Your task to perform on an android device: change notification settings in the gmail app Image 0: 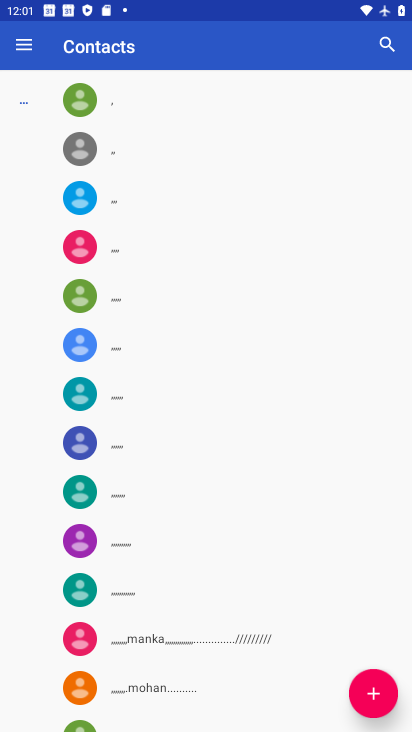
Step 0: press home button
Your task to perform on an android device: change notification settings in the gmail app Image 1: 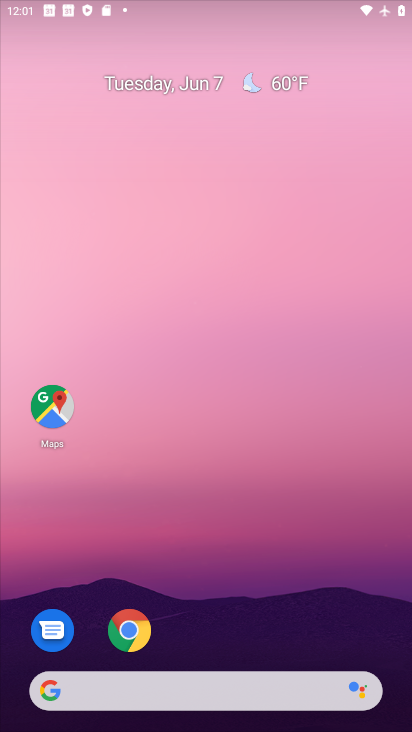
Step 1: drag from (324, 652) to (249, 27)
Your task to perform on an android device: change notification settings in the gmail app Image 2: 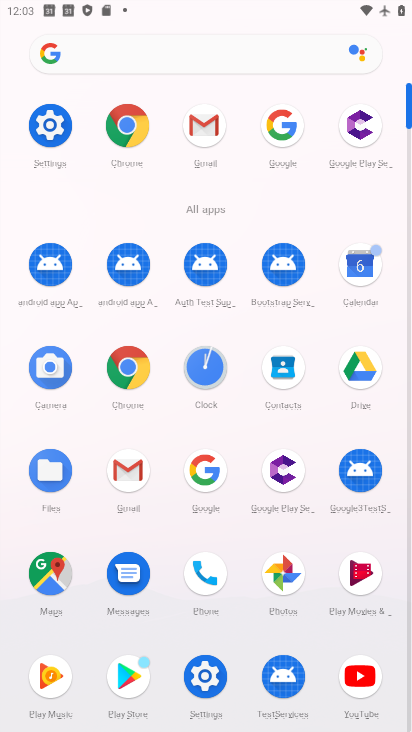
Step 2: click (126, 478)
Your task to perform on an android device: change notification settings in the gmail app Image 3: 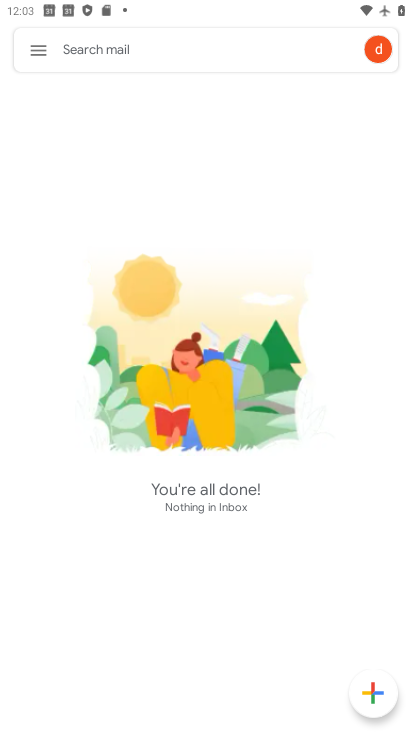
Step 3: click (35, 45)
Your task to perform on an android device: change notification settings in the gmail app Image 4: 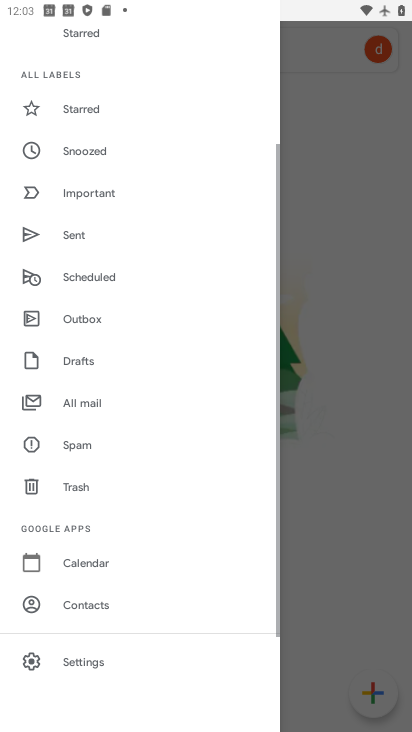
Step 4: drag from (126, 620) to (189, 99)
Your task to perform on an android device: change notification settings in the gmail app Image 5: 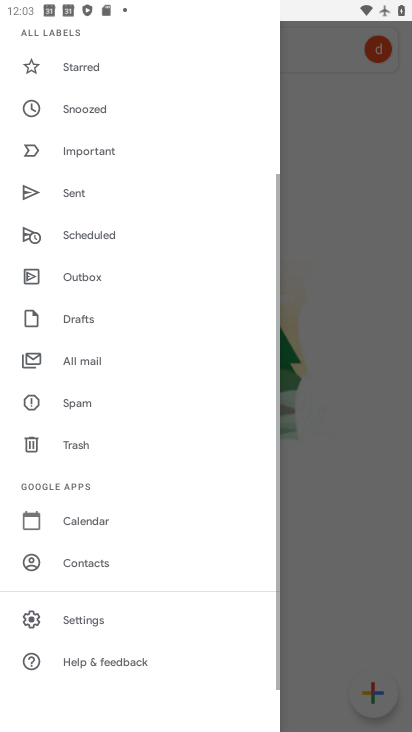
Step 5: click (107, 630)
Your task to perform on an android device: change notification settings in the gmail app Image 6: 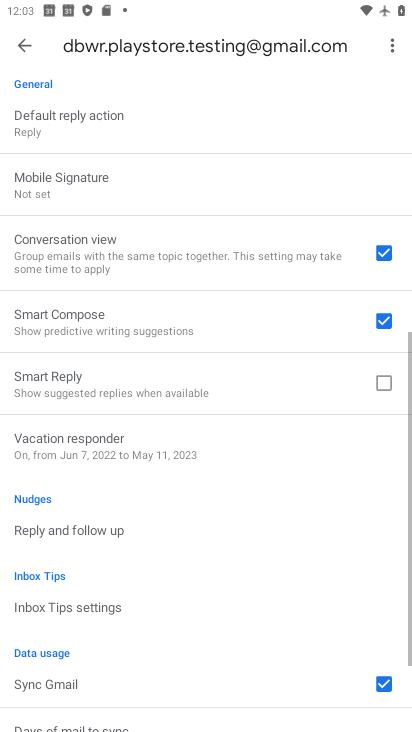
Step 6: drag from (140, 187) to (178, 714)
Your task to perform on an android device: change notification settings in the gmail app Image 7: 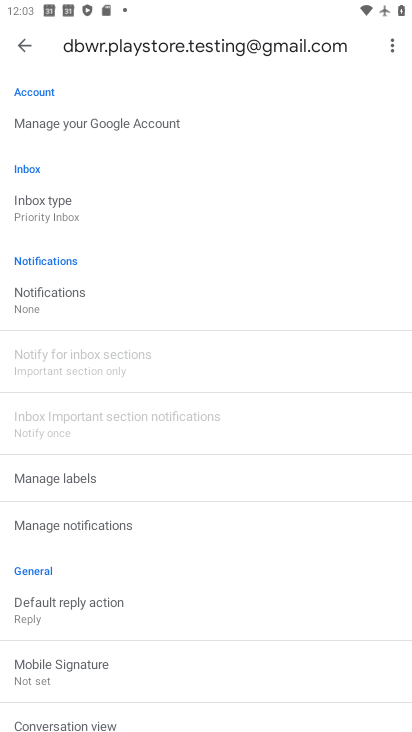
Step 7: click (88, 288)
Your task to perform on an android device: change notification settings in the gmail app Image 8: 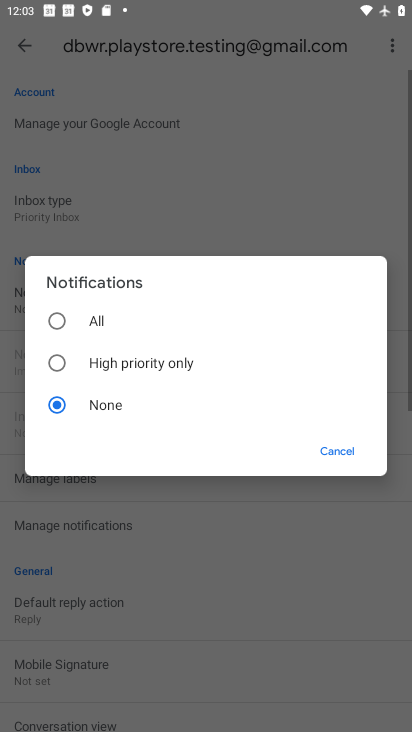
Step 8: click (88, 319)
Your task to perform on an android device: change notification settings in the gmail app Image 9: 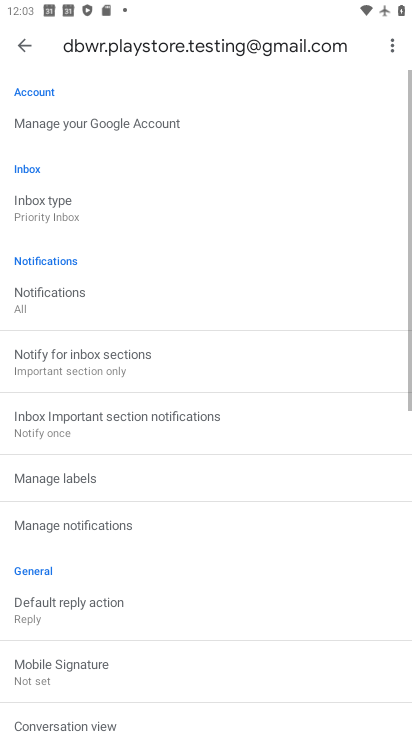
Step 9: task complete